Your task to perform on an android device: Open wifi settings Image 0: 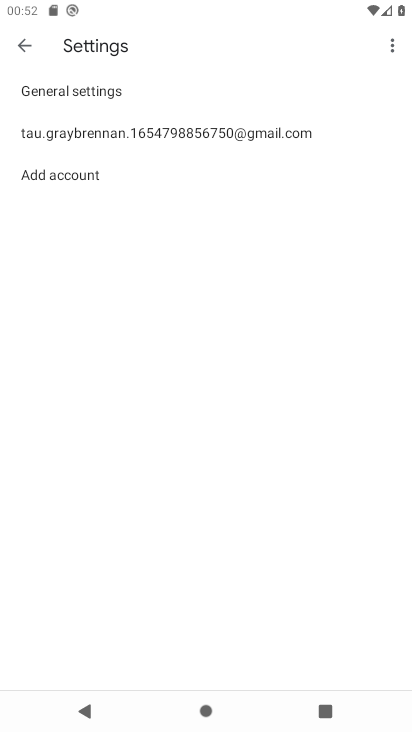
Step 0: press home button
Your task to perform on an android device: Open wifi settings Image 1: 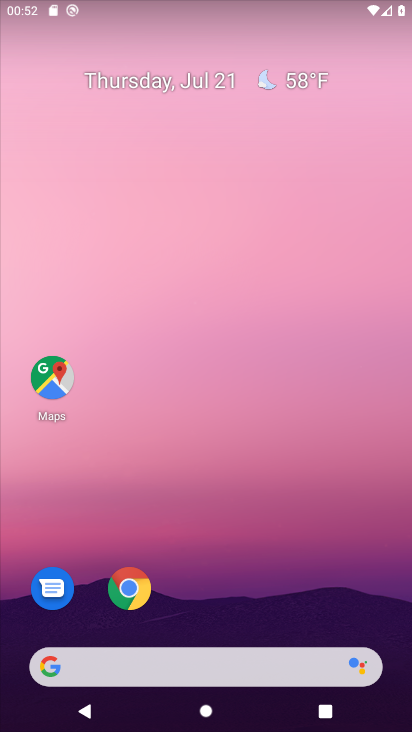
Step 1: drag from (202, 578) to (227, 152)
Your task to perform on an android device: Open wifi settings Image 2: 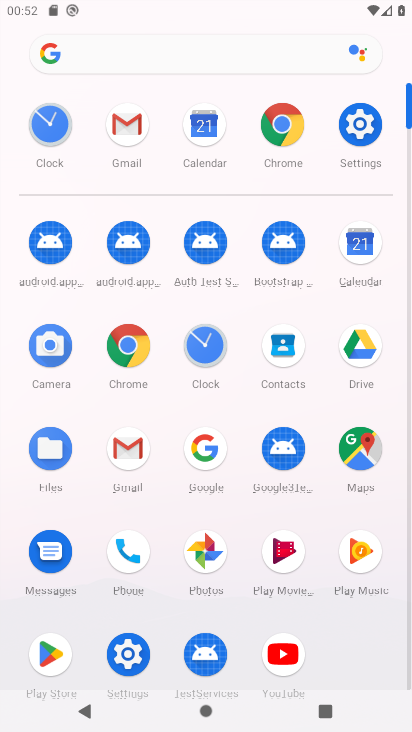
Step 2: drag from (195, 519) to (228, 14)
Your task to perform on an android device: Open wifi settings Image 3: 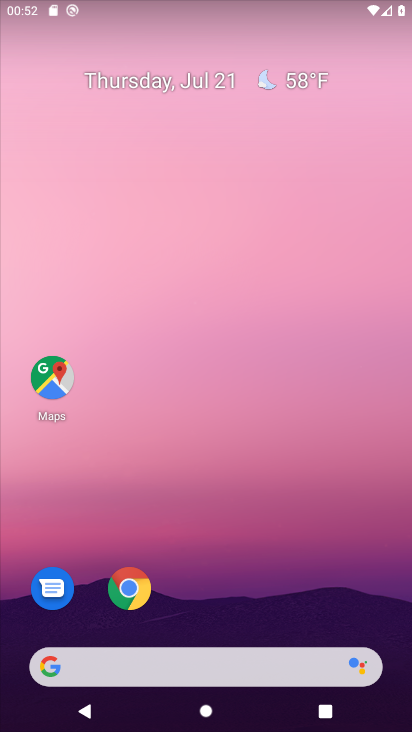
Step 3: drag from (233, 618) to (349, 9)
Your task to perform on an android device: Open wifi settings Image 4: 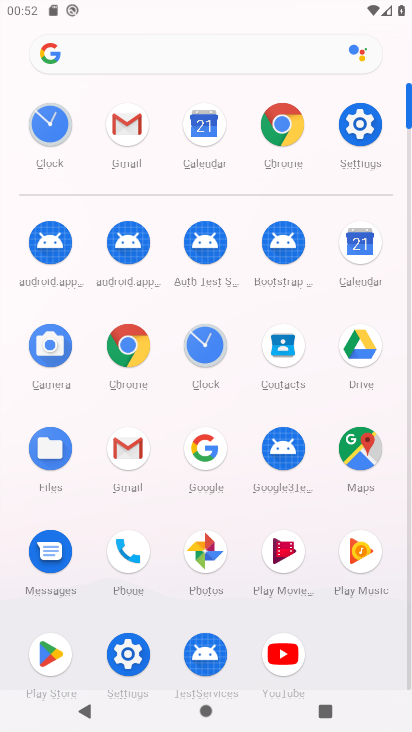
Step 4: click (366, 147)
Your task to perform on an android device: Open wifi settings Image 5: 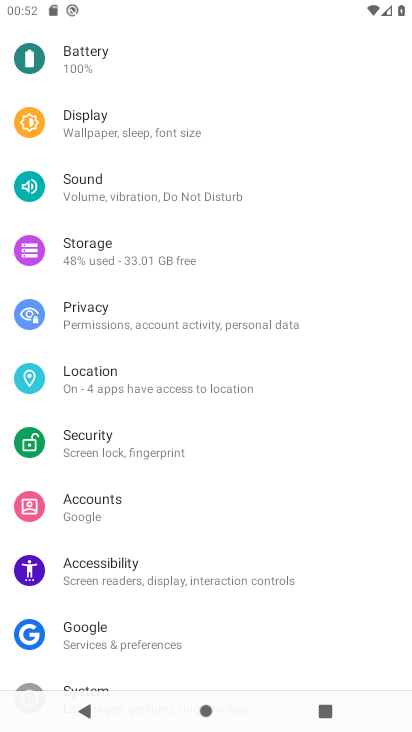
Step 5: drag from (162, 139) to (164, 618)
Your task to perform on an android device: Open wifi settings Image 6: 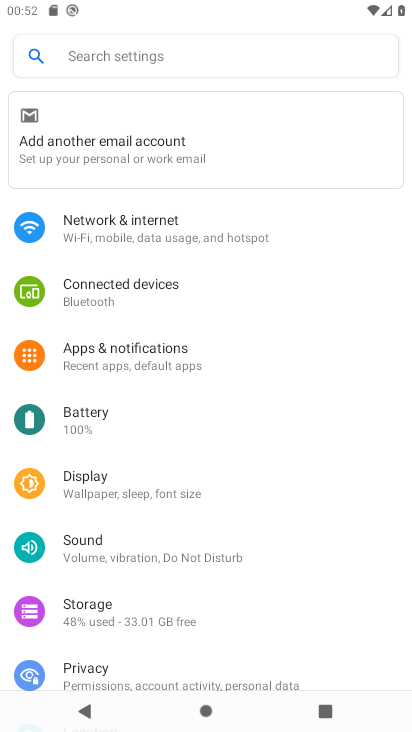
Step 6: click (154, 238)
Your task to perform on an android device: Open wifi settings Image 7: 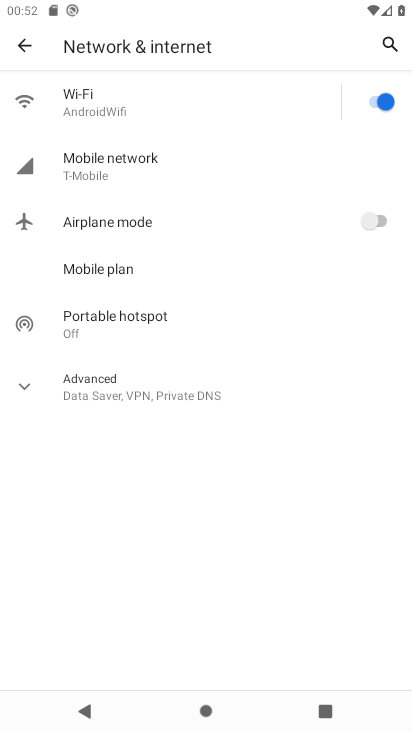
Step 7: click (113, 102)
Your task to perform on an android device: Open wifi settings Image 8: 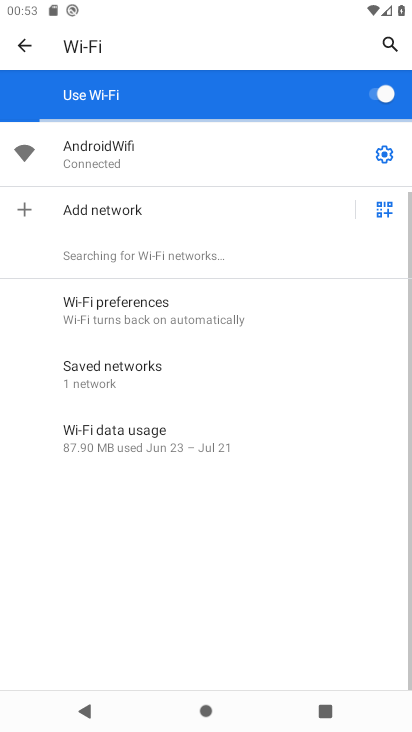
Step 8: task complete